Your task to perform on an android device: toggle pop-ups in chrome Image 0: 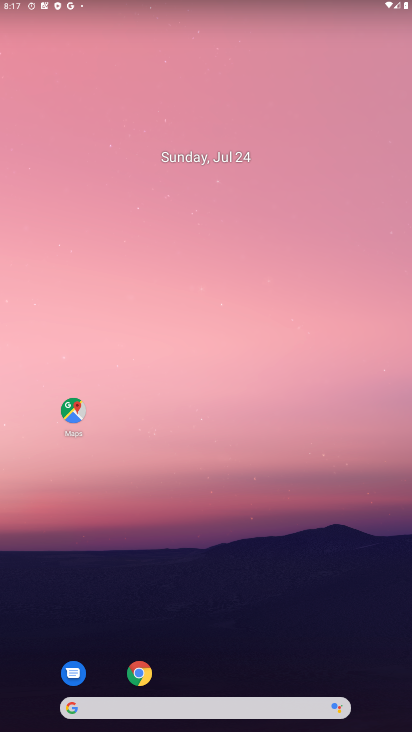
Step 0: click (146, 676)
Your task to perform on an android device: toggle pop-ups in chrome Image 1: 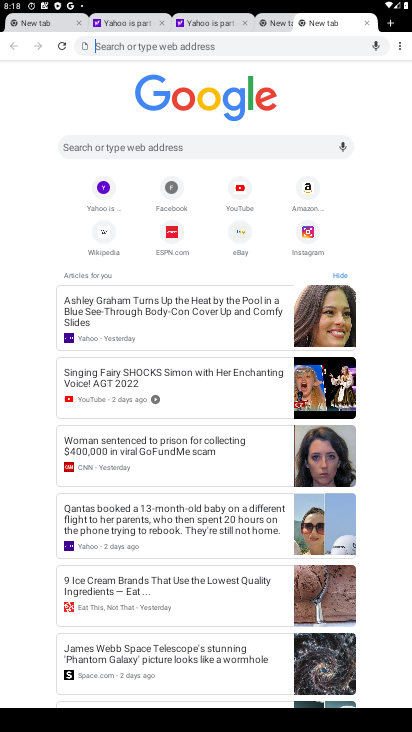
Step 1: click (394, 44)
Your task to perform on an android device: toggle pop-ups in chrome Image 2: 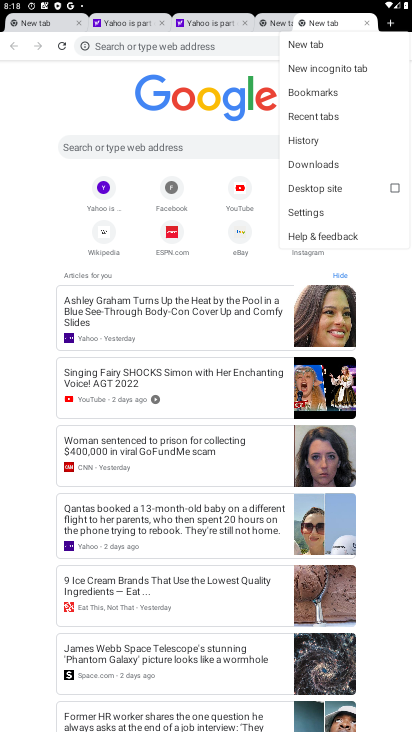
Step 2: click (309, 208)
Your task to perform on an android device: toggle pop-ups in chrome Image 3: 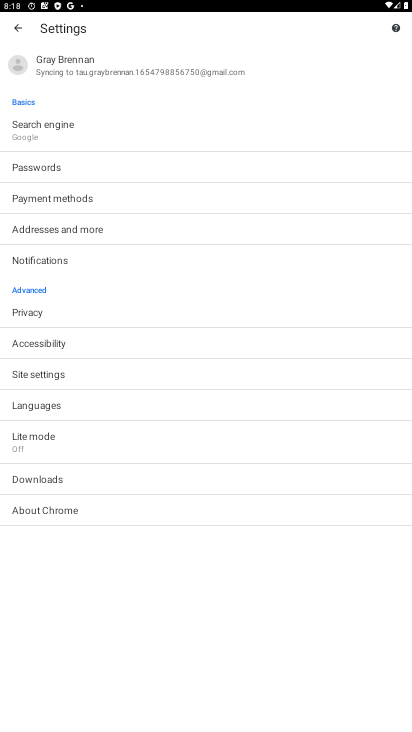
Step 3: click (39, 376)
Your task to perform on an android device: toggle pop-ups in chrome Image 4: 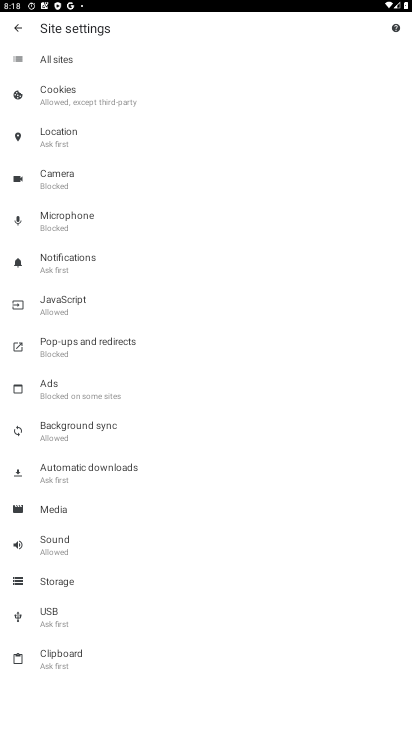
Step 4: click (45, 348)
Your task to perform on an android device: toggle pop-ups in chrome Image 5: 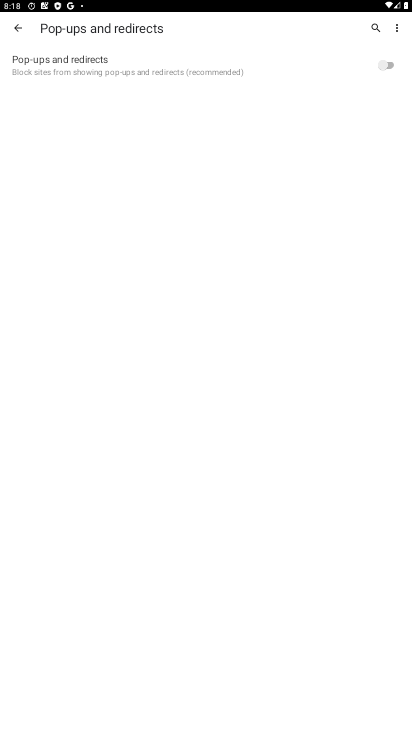
Step 5: click (387, 64)
Your task to perform on an android device: toggle pop-ups in chrome Image 6: 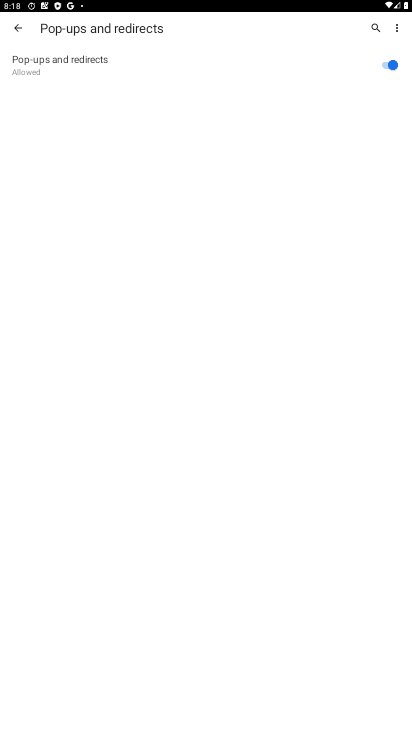
Step 6: task complete